Your task to perform on an android device: Clear the cart on target.com. Image 0: 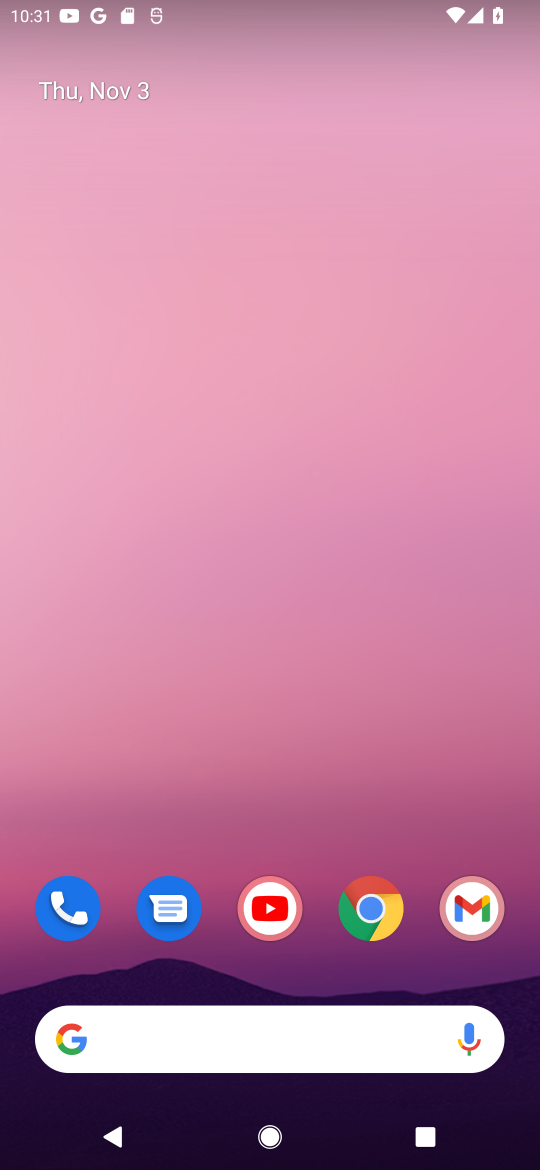
Step 0: click (384, 916)
Your task to perform on an android device: Clear the cart on target.com. Image 1: 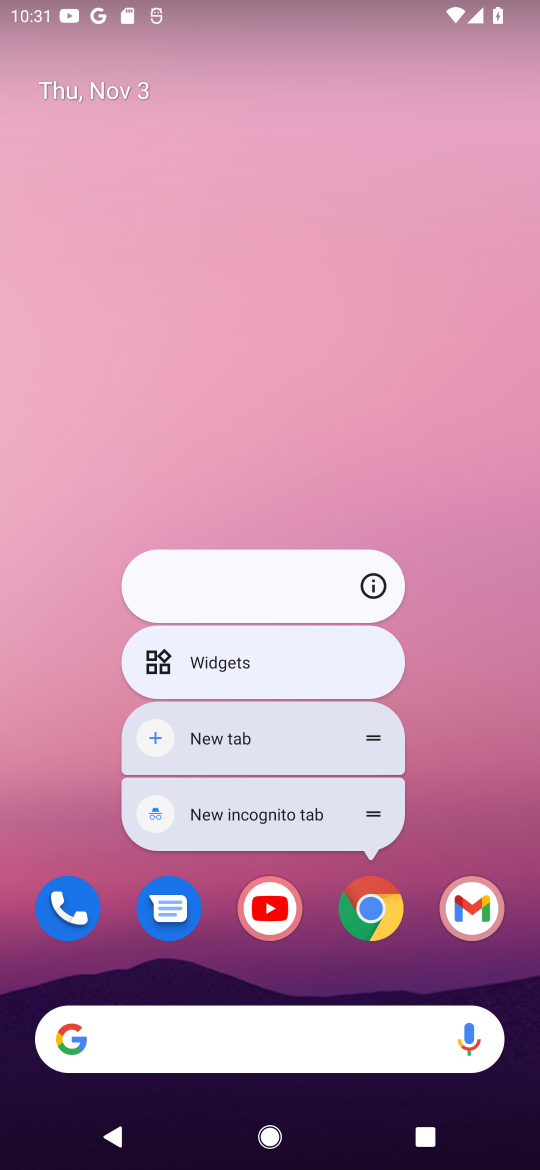
Step 1: click (504, 739)
Your task to perform on an android device: Clear the cart on target.com. Image 2: 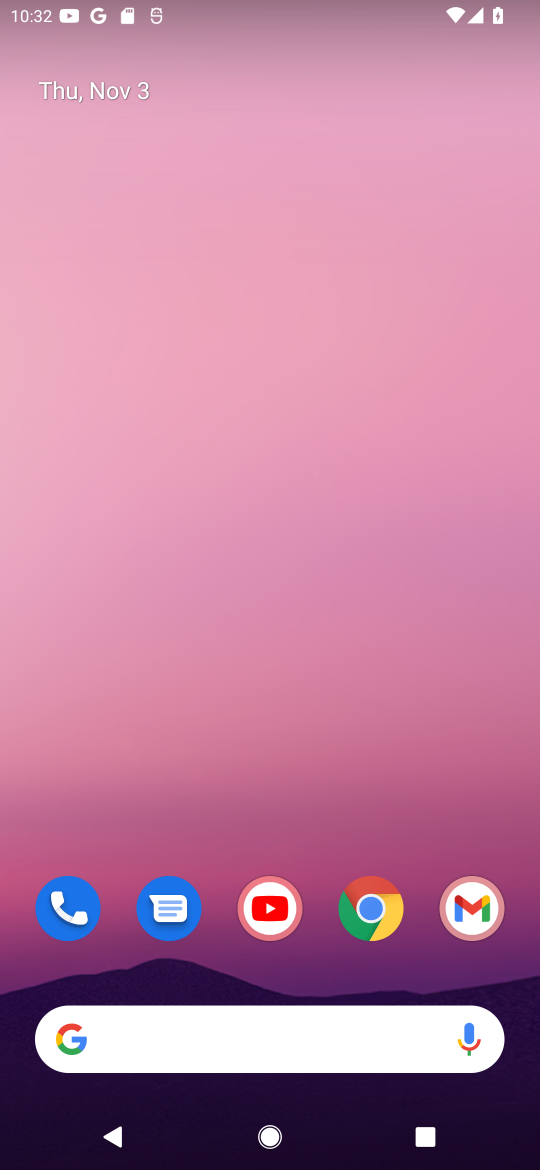
Step 2: click (390, 909)
Your task to perform on an android device: Clear the cart on target.com. Image 3: 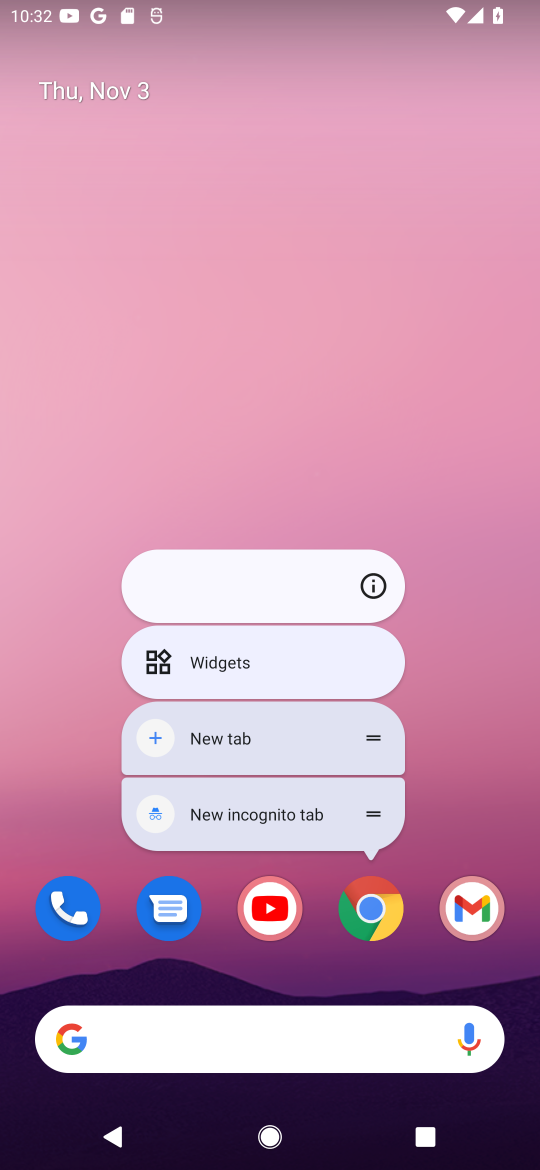
Step 3: click (508, 714)
Your task to perform on an android device: Clear the cart on target.com. Image 4: 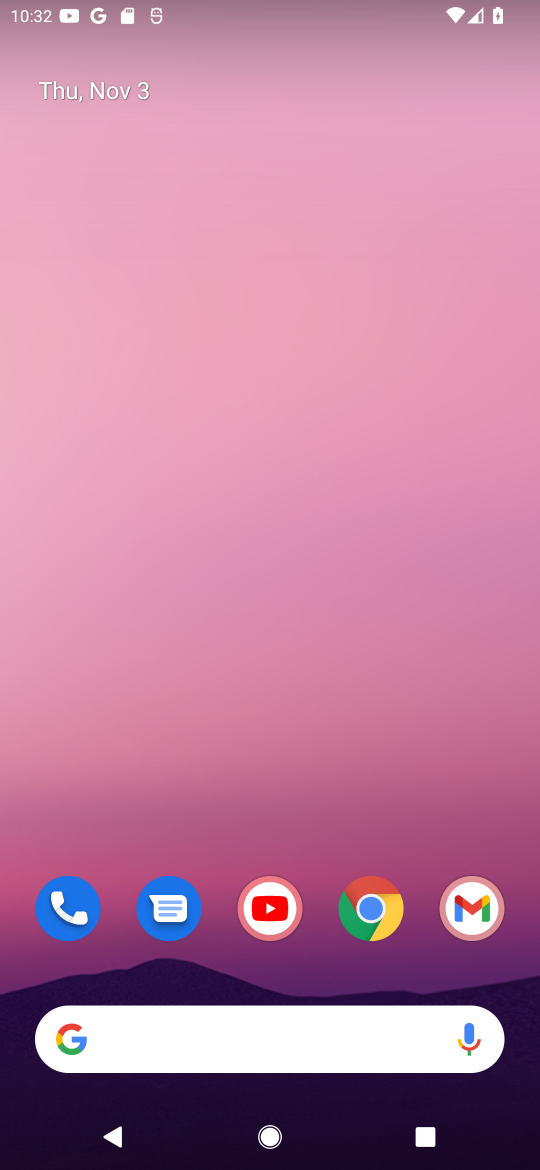
Step 4: click (449, 721)
Your task to perform on an android device: Clear the cart on target.com. Image 5: 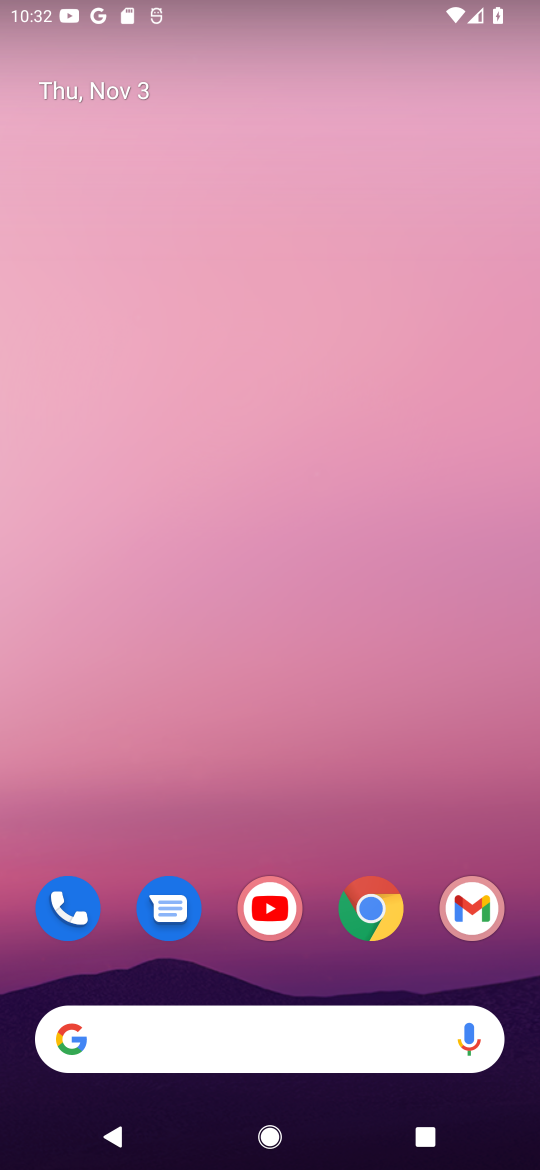
Step 5: click (384, 922)
Your task to perform on an android device: Clear the cart on target.com. Image 6: 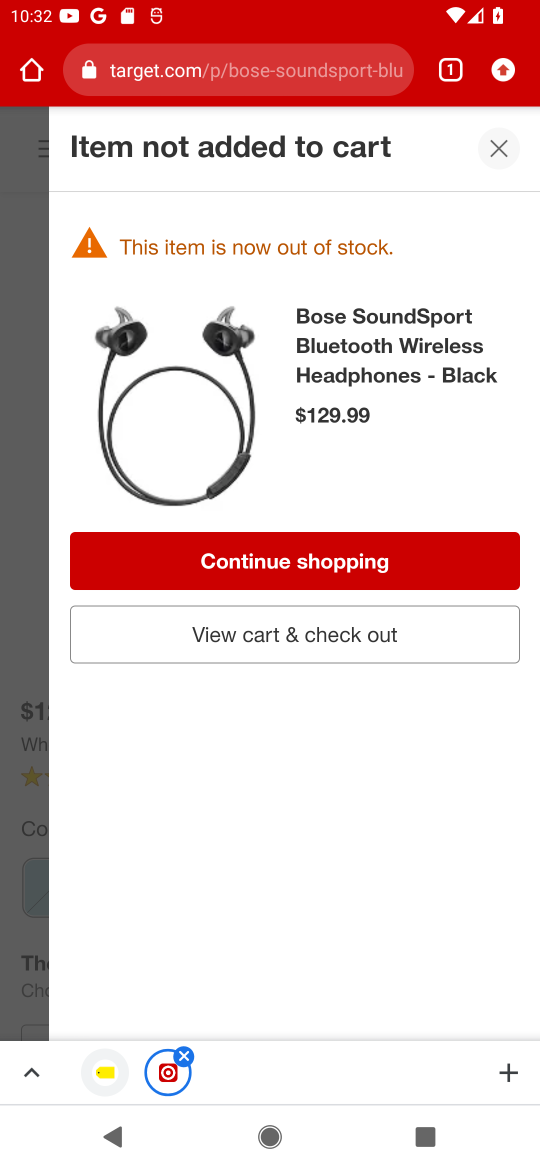
Step 6: click (262, 74)
Your task to perform on an android device: Clear the cart on target.com. Image 7: 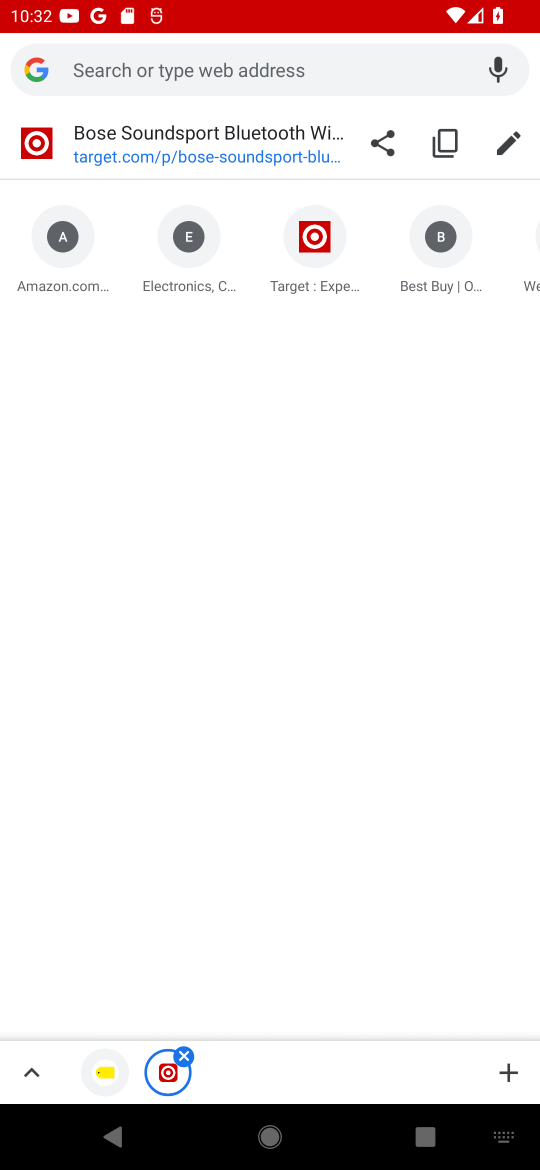
Step 7: click (303, 261)
Your task to perform on an android device: Clear the cart on target.com. Image 8: 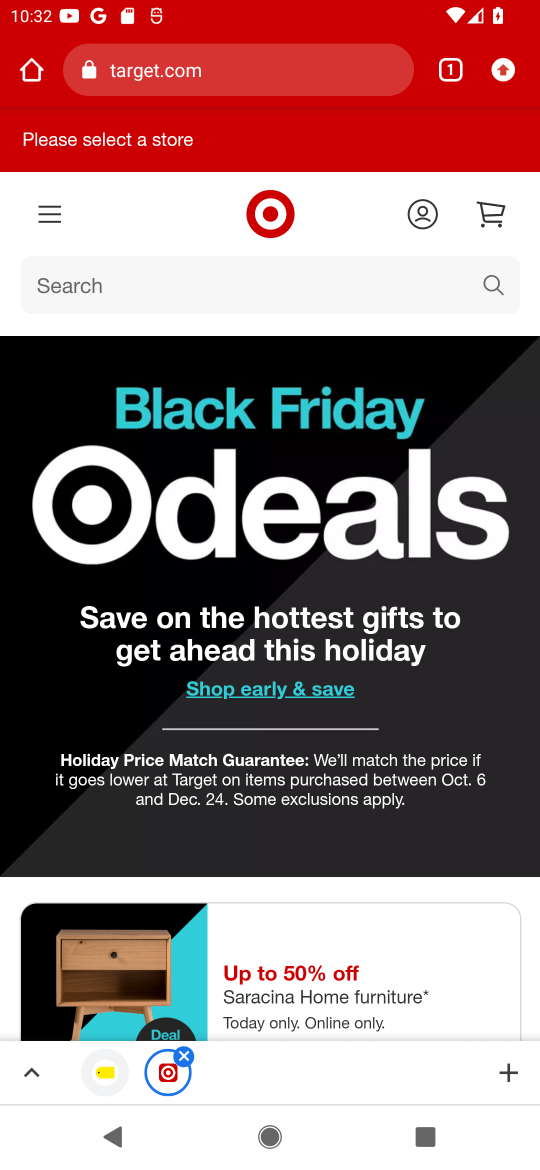
Step 8: click (495, 219)
Your task to perform on an android device: Clear the cart on target.com. Image 9: 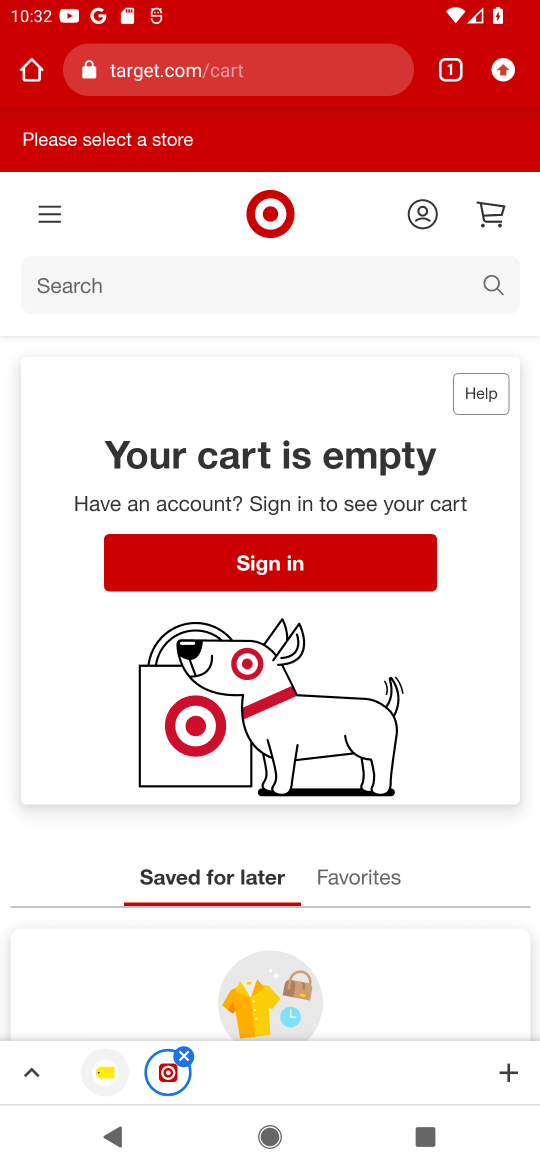
Step 9: task complete